Your task to perform on an android device: turn off location Image 0: 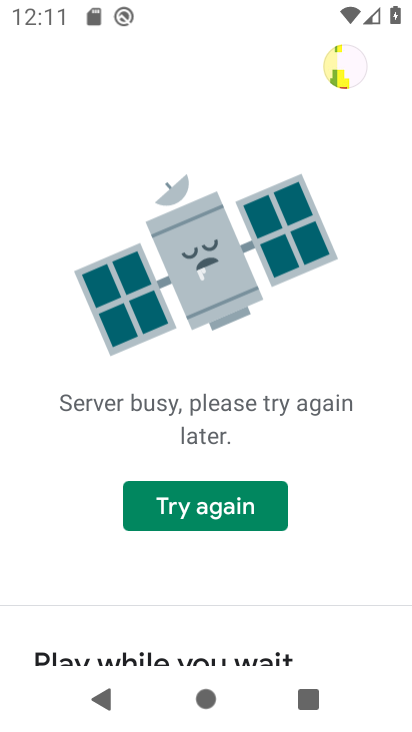
Step 0: press home button
Your task to perform on an android device: turn off location Image 1: 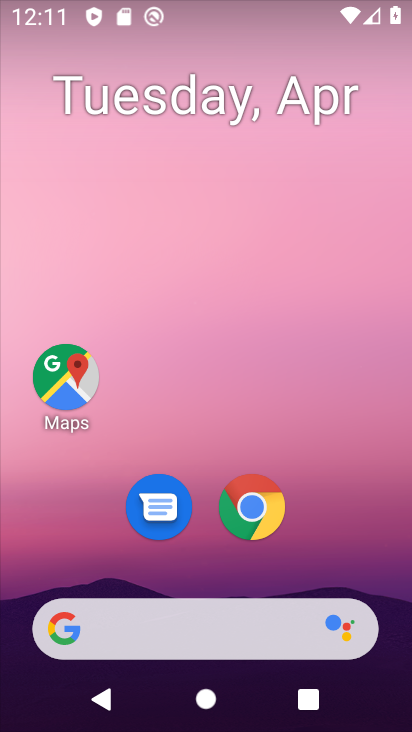
Step 1: drag from (205, 457) to (196, 46)
Your task to perform on an android device: turn off location Image 2: 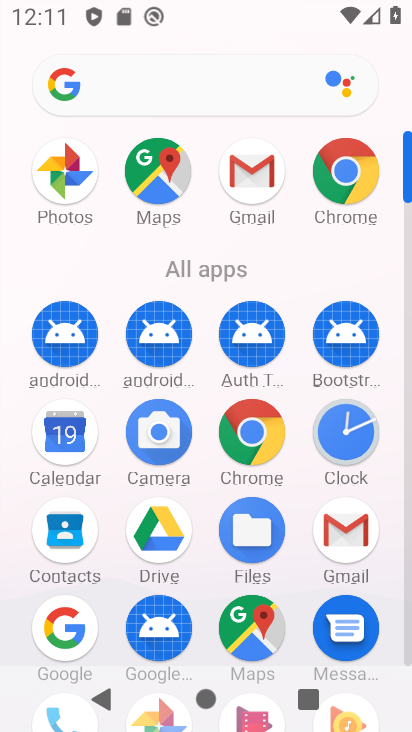
Step 2: drag from (210, 611) to (195, 218)
Your task to perform on an android device: turn off location Image 3: 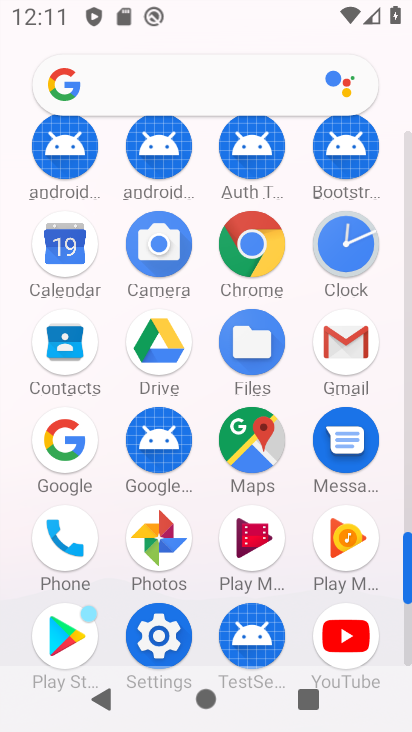
Step 3: click (155, 632)
Your task to perform on an android device: turn off location Image 4: 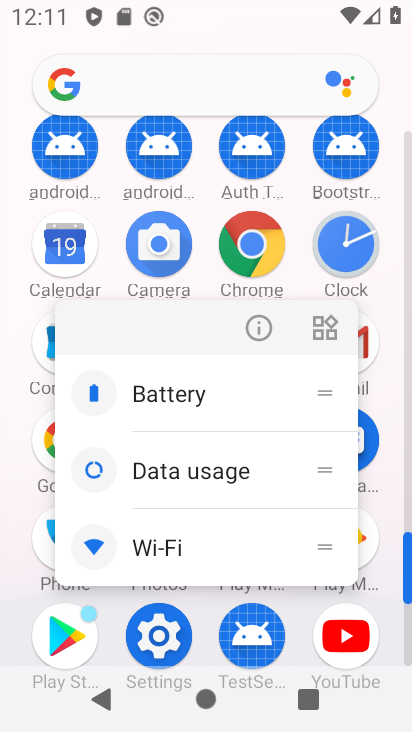
Step 4: click (163, 642)
Your task to perform on an android device: turn off location Image 5: 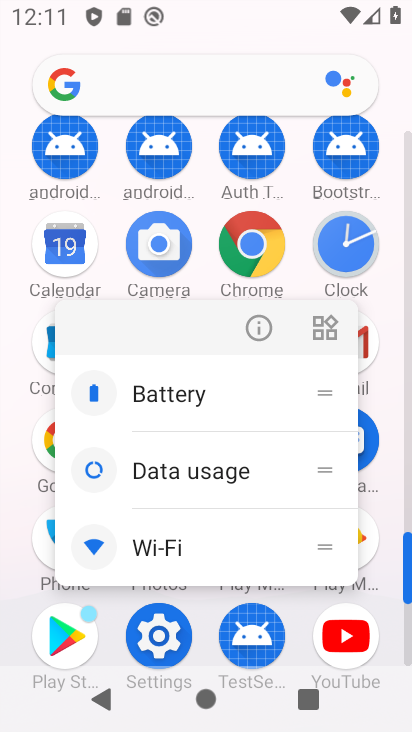
Step 5: click (169, 635)
Your task to perform on an android device: turn off location Image 6: 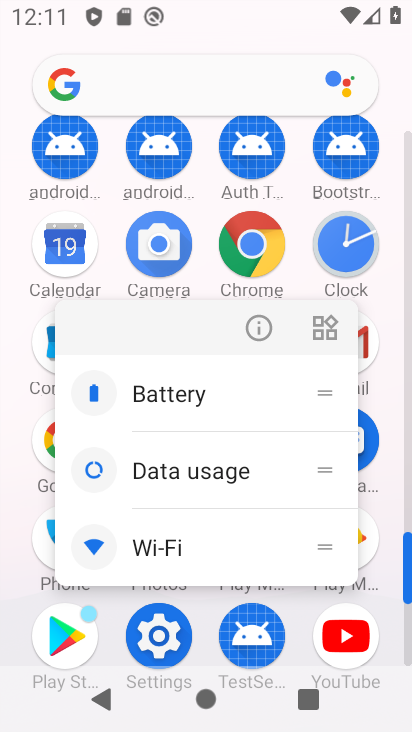
Step 6: click (169, 631)
Your task to perform on an android device: turn off location Image 7: 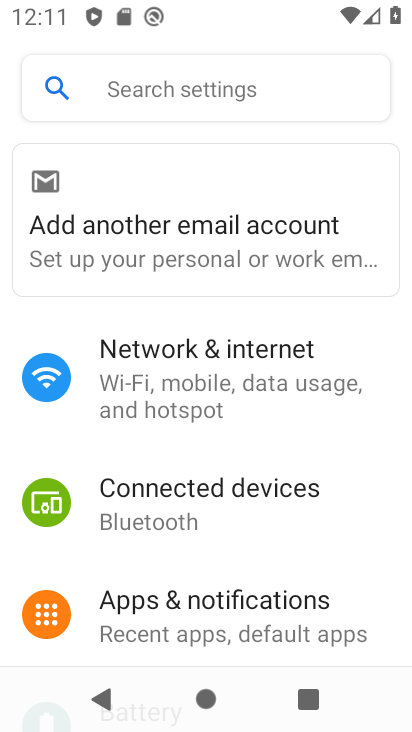
Step 7: drag from (227, 566) to (193, 180)
Your task to perform on an android device: turn off location Image 8: 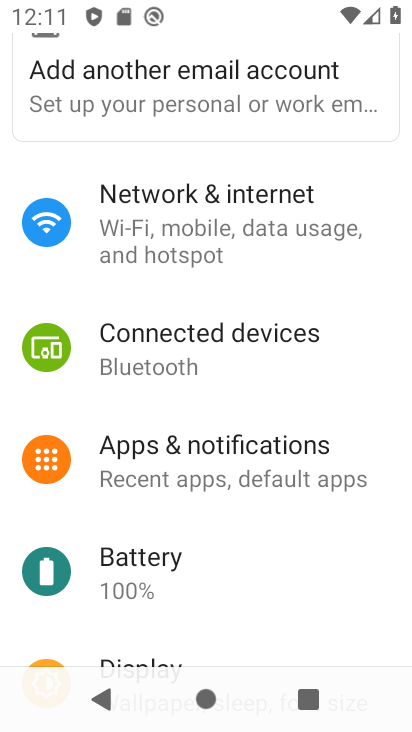
Step 8: click (219, 240)
Your task to perform on an android device: turn off location Image 9: 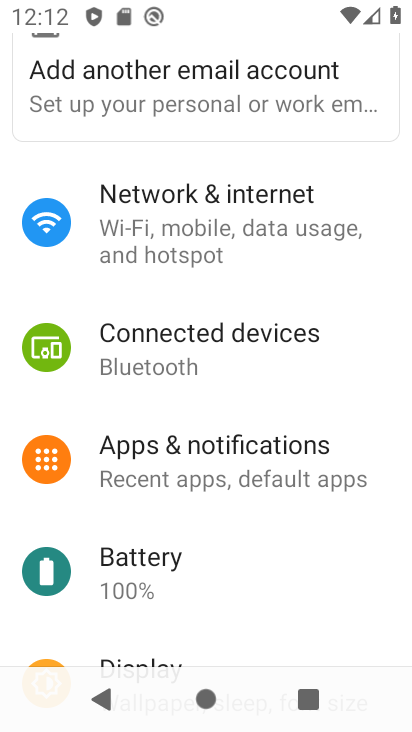
Step 9: drag from (232, 626) to (197, 196)
Your task to perform on an android device: turn off location Image 10: 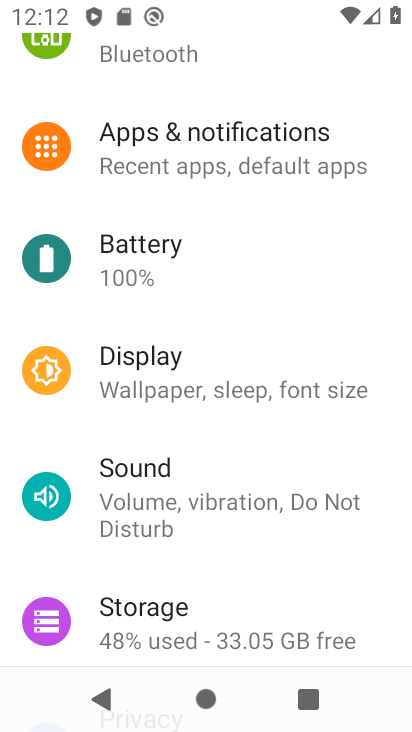
Step 10: drag from (216, 507) to (209, 150)
Your task to perform on an android device: turn off location Image 11: 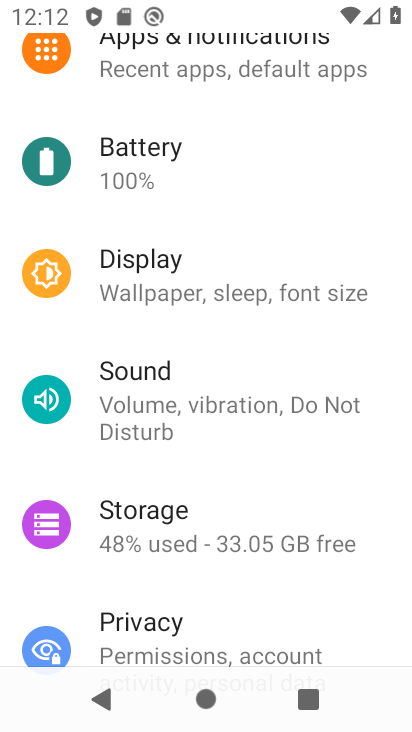
Step 11: drag from (210, 613) to (208, 192)
Your task to perform on an android device: turn off location Image 12: 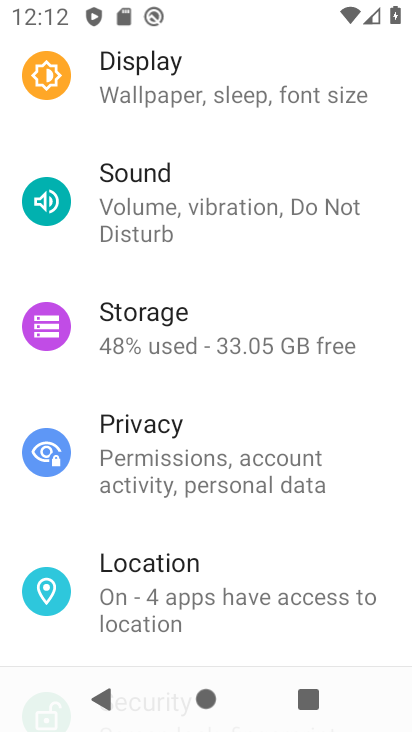
Step 12: click (194, 585)
Your task to perform on an android device: turn off location Image 13: 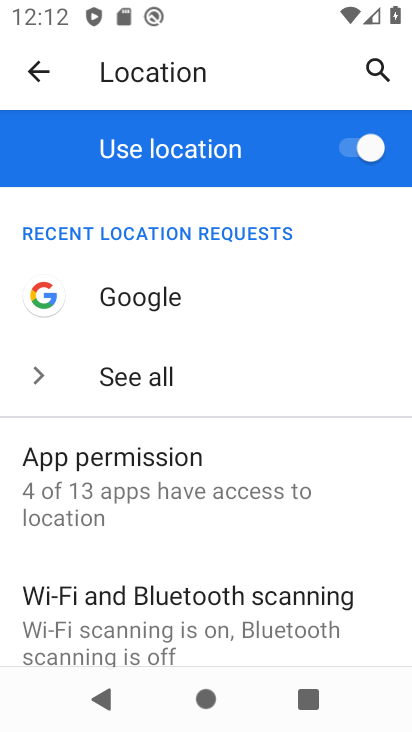
Step 13: drag from (153, 553) to (161, 606)
Your task to perform on an android device: turn off location Image 14: 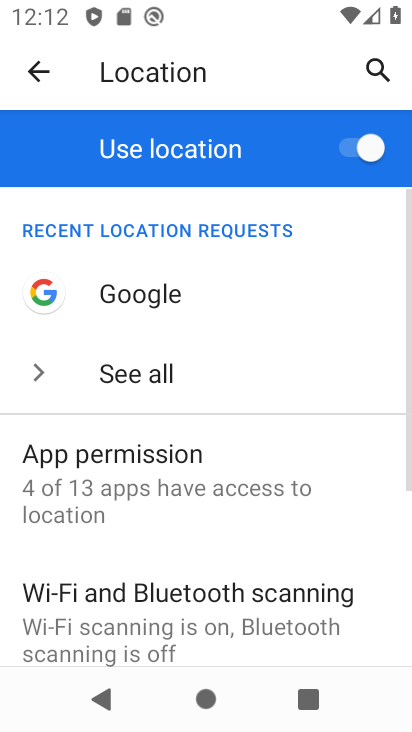
Step 14: click (348, 146)
Your task to perform on an android device: turn off location Image 15: 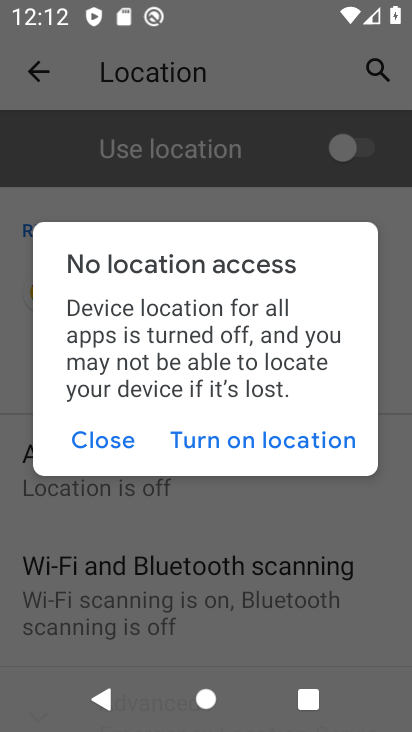
Step 15: task complete